Your task to perform on an android device: Go to CNN.com Image 0: 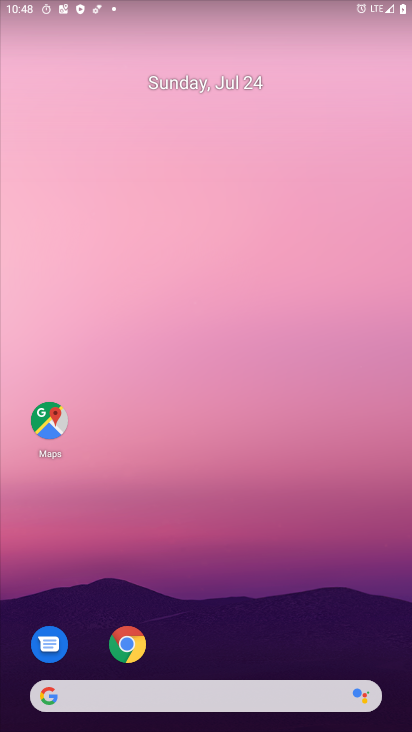
Step 0: drag from (200, 676) to (197, 298)
Your task to perform on an android device: Go to CNN.com Image 1: 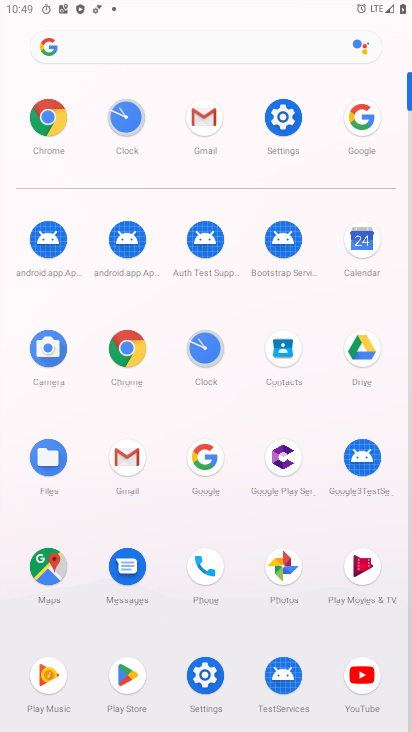
Step 1: click (206, 468)
Your task to perform on an android device: Go to CNN.com Image 2: 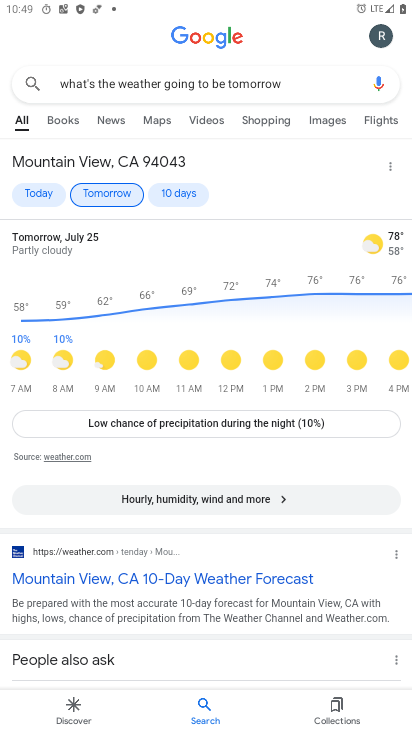
Step 2: click (318, 77)
Your task to perform on an android device: Go to CNN.com Image 3: 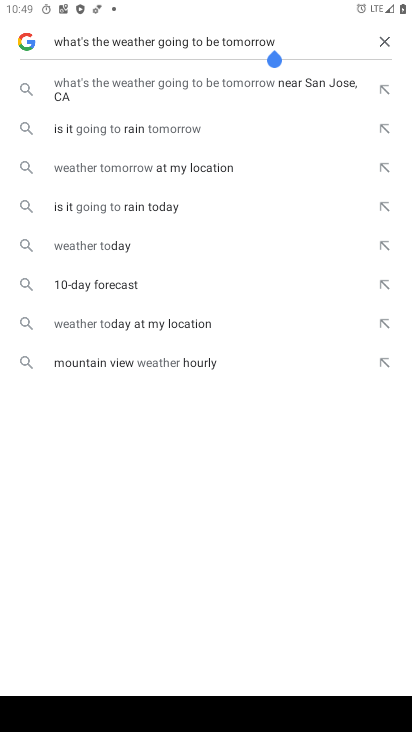
Step 3: click (379, 45)
Your task to perform on an android device: Go to CNN.com Image 4: 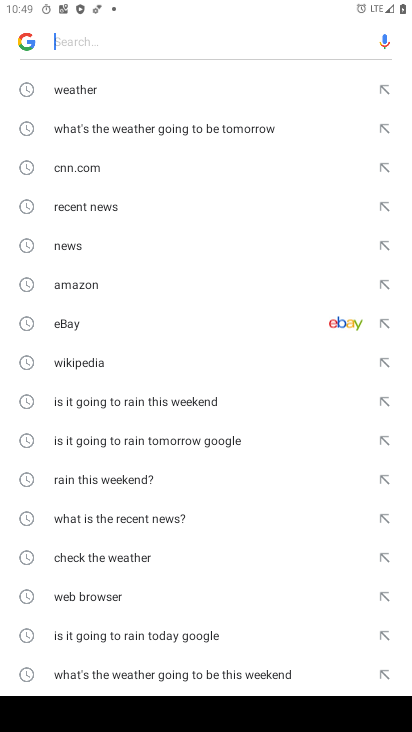
Step 4: click (87, 172)
Your task to perform on an android device: Go to CNN.com Image 5: 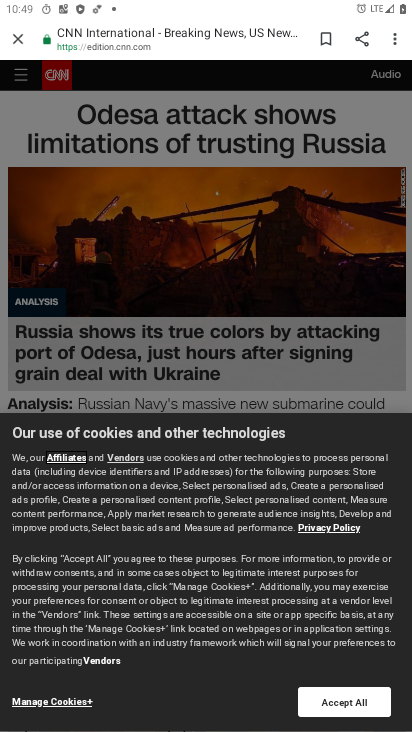
Step 5: task complete